Your task to perform on an android device: Go to battery settings Image 0: 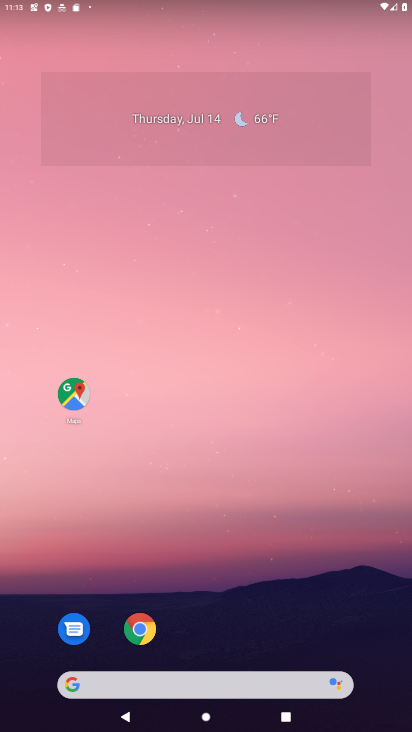
Step 0: press home button
Your task to perform on an android device: Go to battery settings Image 1: 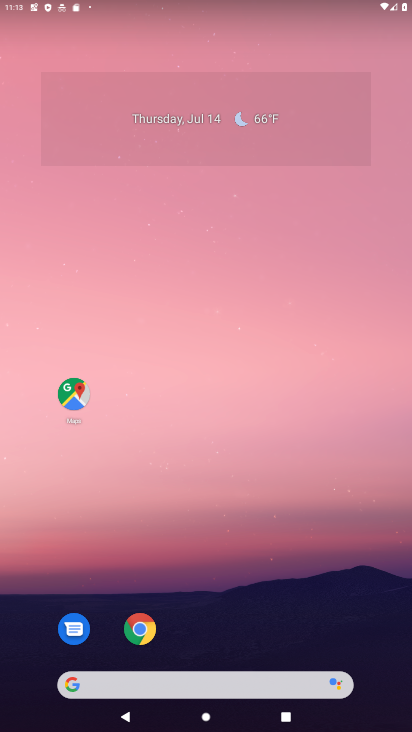
Step 1: drag from (290, 631) to (349, 53)
Your task to perform on an android device: Go to battery settings Image 2: 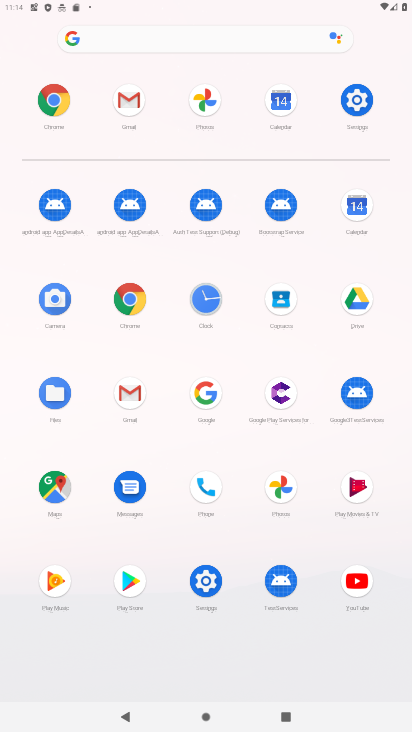
Step 2: click (354, 100)
Your task to perform on an android device: Go to battery settings Image 3: 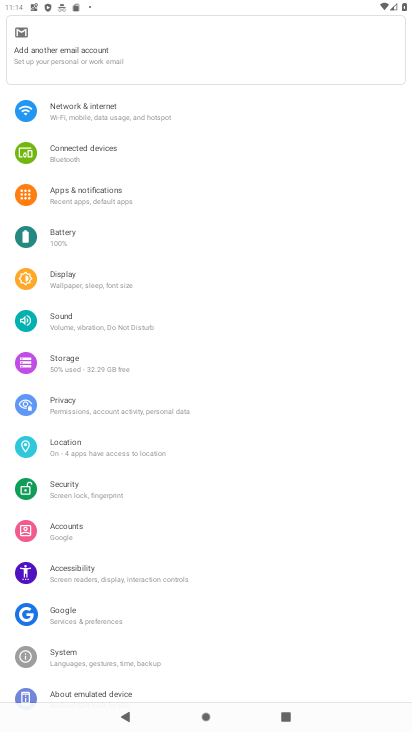
Step 3: click (69, 231)
Your task to perform on an android device: Go to battery settings Image 4: 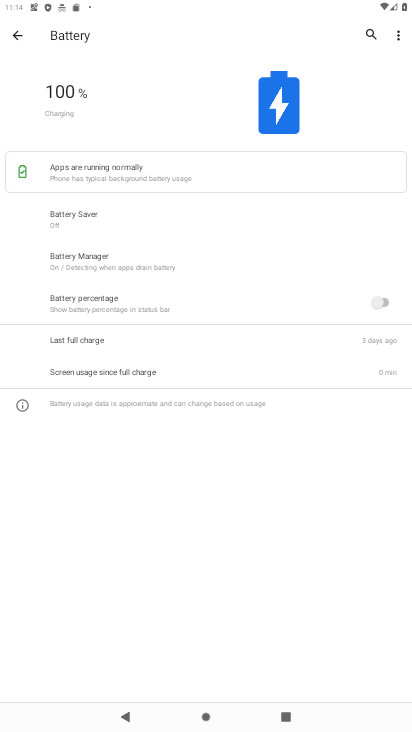
Step 4: task complete